Your task to perform on an android device: turn vacation reply on in the gmail app Image 0: 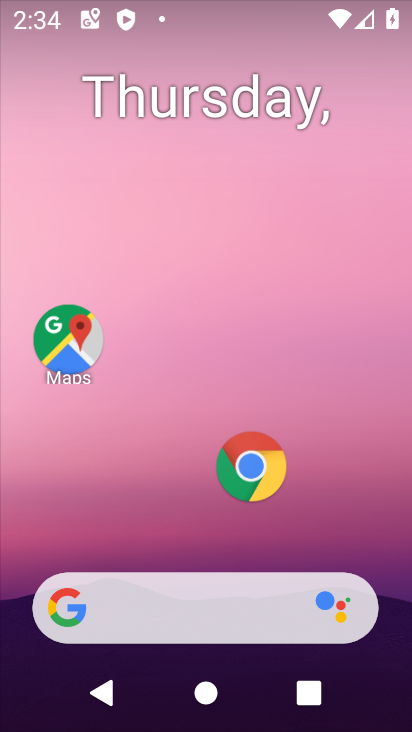
Step 0: drag from (204, 543) to (193, 186)
Your task to perform on an android device: turn vacation reply on in the gmail app Image 1: 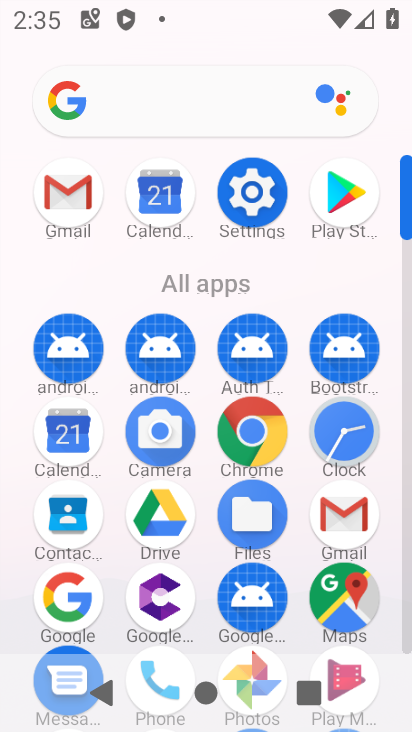
Step 1: click (86, 204)
Your task to perform on an android device: turn vacation reply on in the gmail app Image 2: 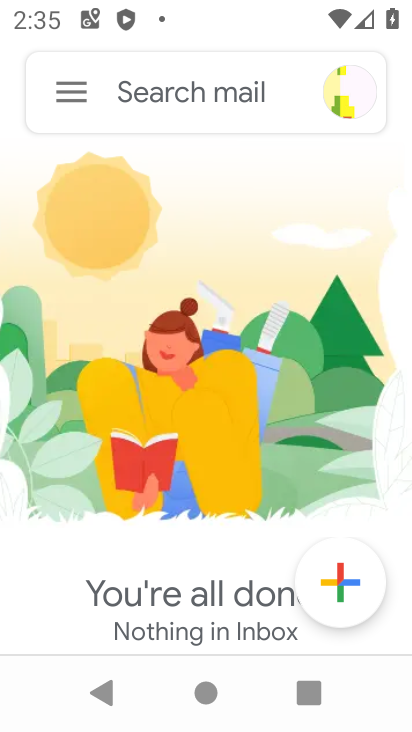
Step 2: click (72, 91)
Your task to perform on an android device: turn vacation reply on in the gmail app Image 3: 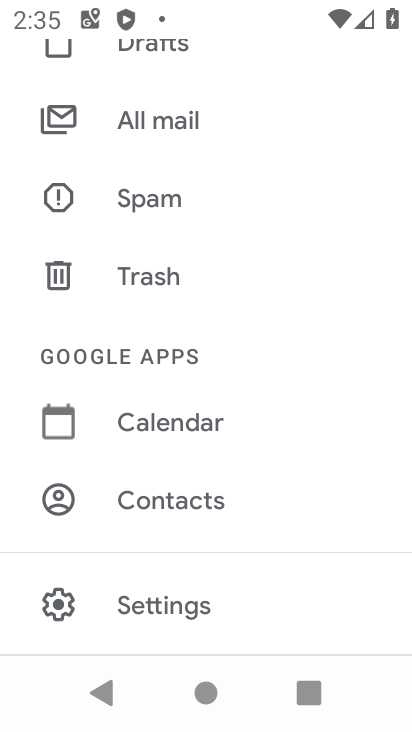
Step 3: click (197, 595)
Your task to perform on an android device: turn vacation reply on in the gmail app Image 4: 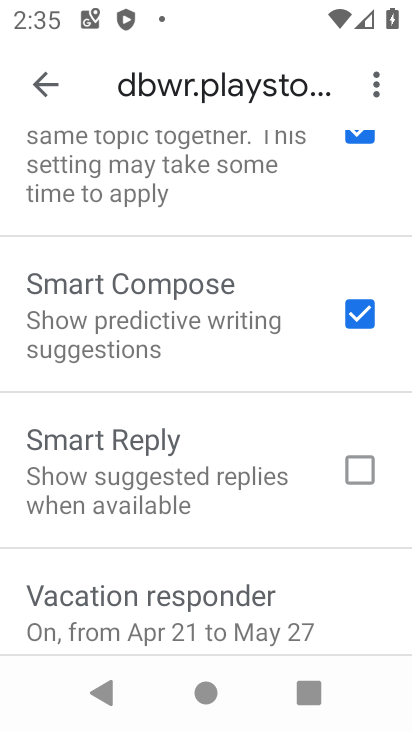
Step 4: click (215, 618)
Your task to perform on an android device: turn vacation reply on in the gmail app Image 5: 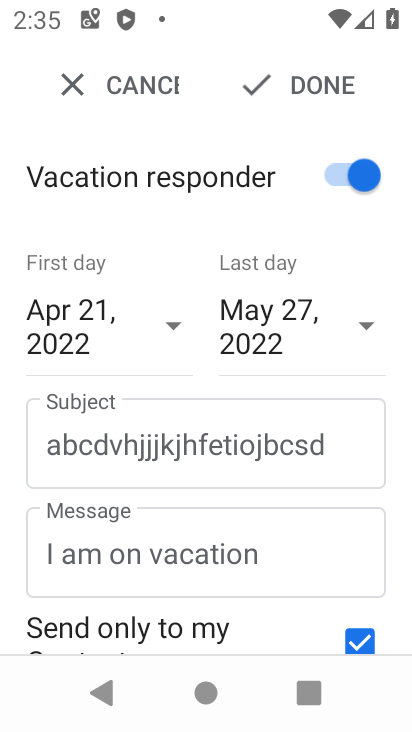
Step 5: task complete